Your task to perform on an android device: turn off javascript in the chrome app Image 0: 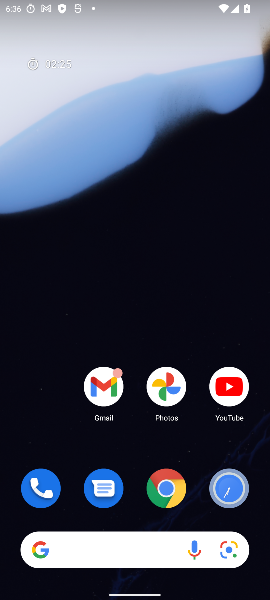
Step 0: drag from (102, 519) to (53, 36)
Your task to perform on an android device: turn off javascript in the chrome app Image 1: 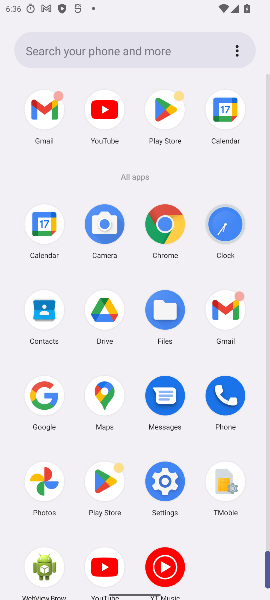
Step 1: click (172, 229)
Your task to perform on an android device: turn off javascript in the chrome app Image 2: 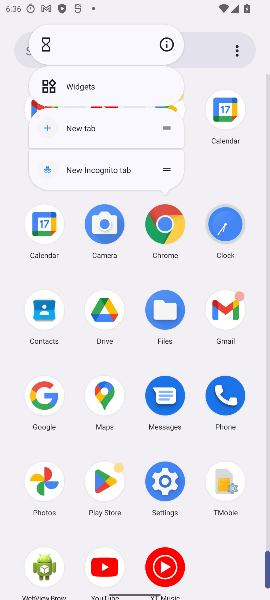
Step 2: click (171, 227)
Your task to perform on an android device: turn off javascript in the chrome app Image 3: 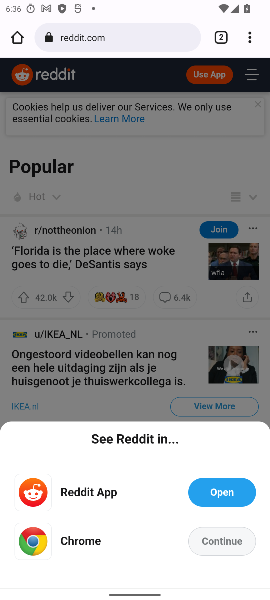
Step 3: drag from (258, 38) to (131, 528)
Your task to perform on an android device: turn off javascript in the chrome app Image 4: 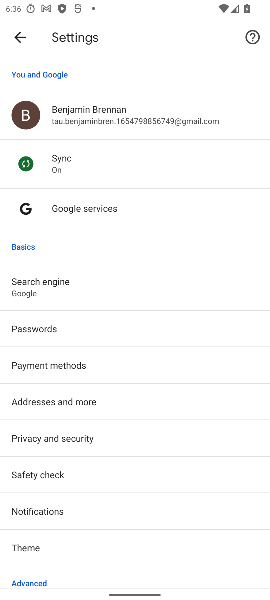
Step 4: drag from (84, 474) to (74, 155)
Your task to perform on an android device: turn off javascript in the chrome app Image 5: 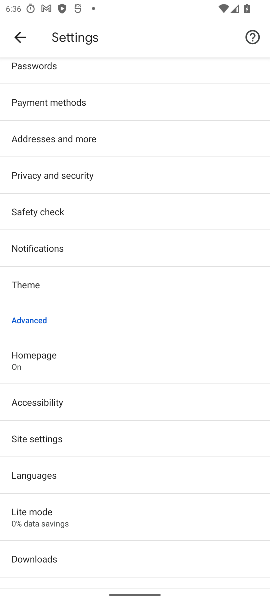
Step 5: click (68, 434)
Your task to perform on an android device: turn off javascript in the chrome app Image 6: 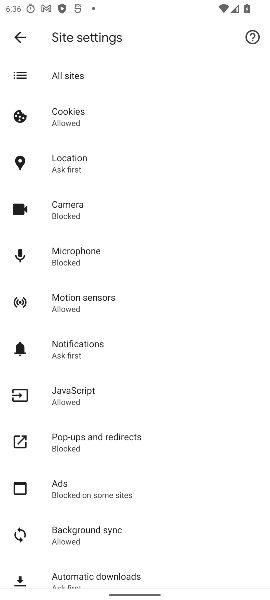
Step 6: click (57, 402)
Your task to perform on an android device: turn off javascript in the chrome app Image 7: 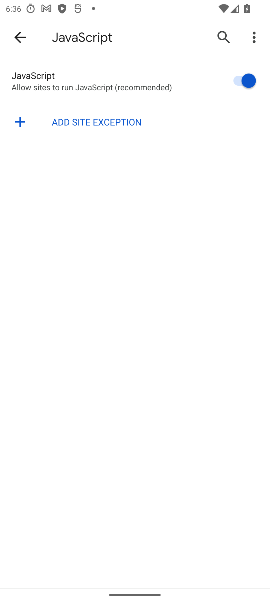
Step 7: click (242, 86)
Your task to perform on an android device: turn off javascript in the chrome app Image 8: 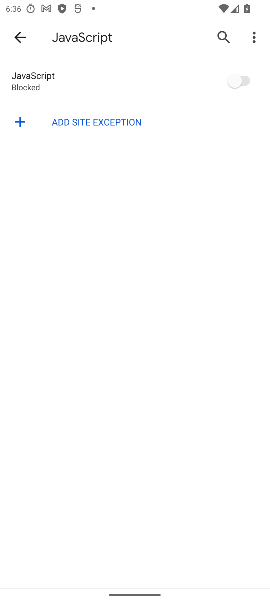
Step 8: task complete